Your task to perform on an android device: open app "Mercado Libre" (install if not already installed), go to login, and select forgot password Image 0: 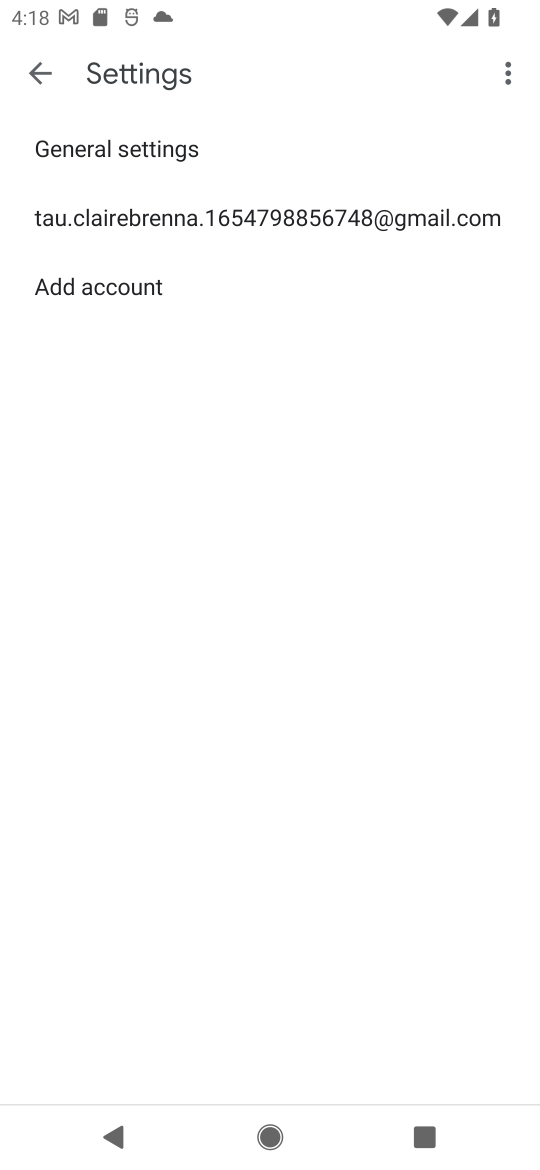
Step 0: press back button
Your task to perform on an android device: open app "Mercado Libre" (install if not already installed), go to login, and select forgot password Image 1: 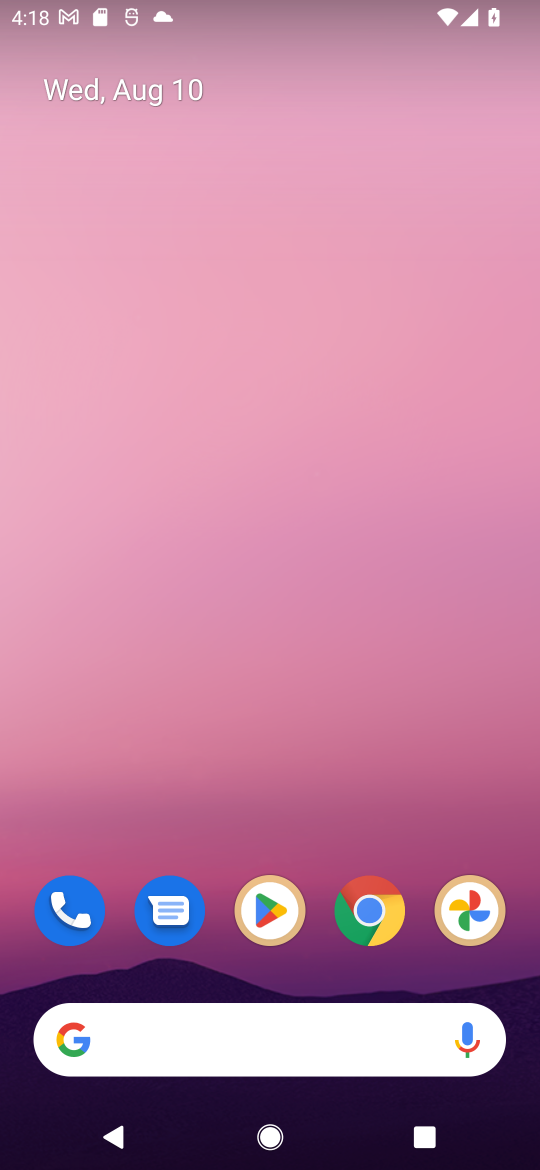
Step 1: click (272, 913)
Your task to perform on an android device: open app "Mercado Libre" (install if not already installed), go to login, and select forgot password Image 2: 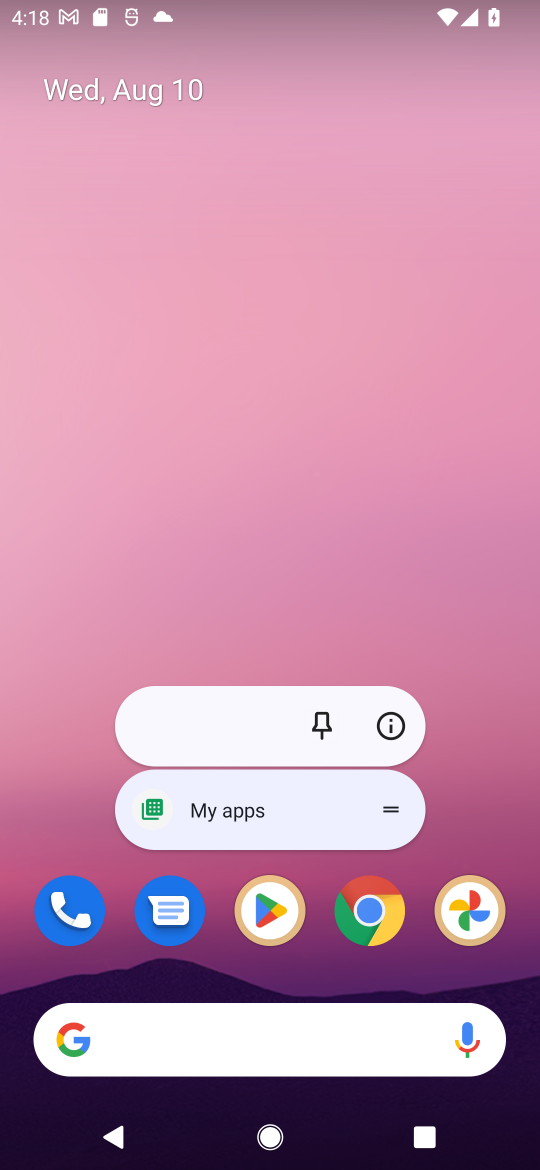
Step 2: click (270, 913)
Your task to perform on an android device: open app "Mercado Libre" (install if not already installed), go to login, and select forgot password Image 3: 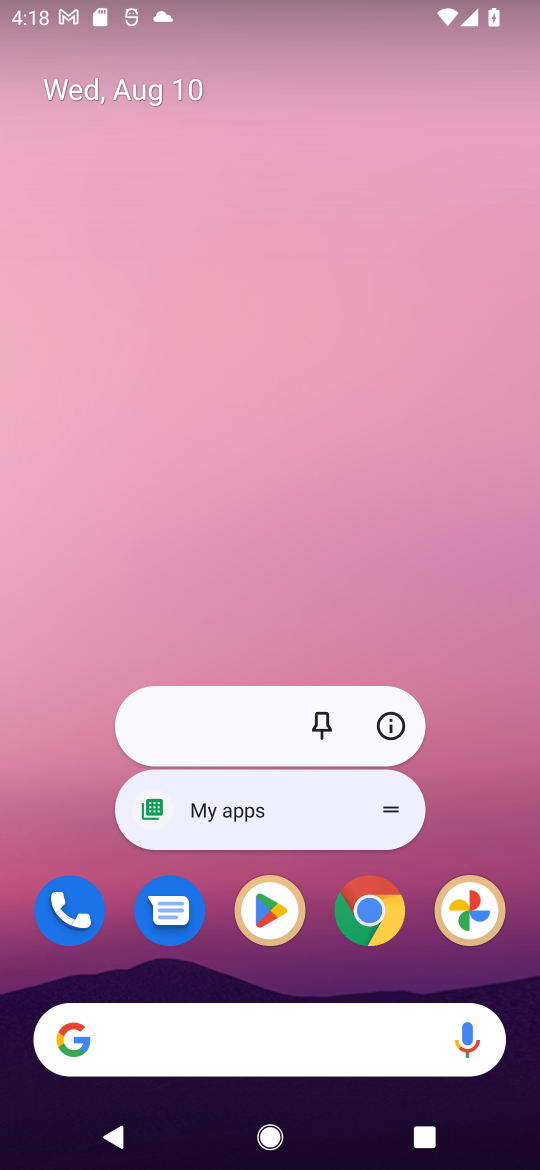
Step 3: click (280, 919)
Your task to perform on an android device: open app "Mercado Libre" (install if not already installed), go to login, and select forgot password Image 4: 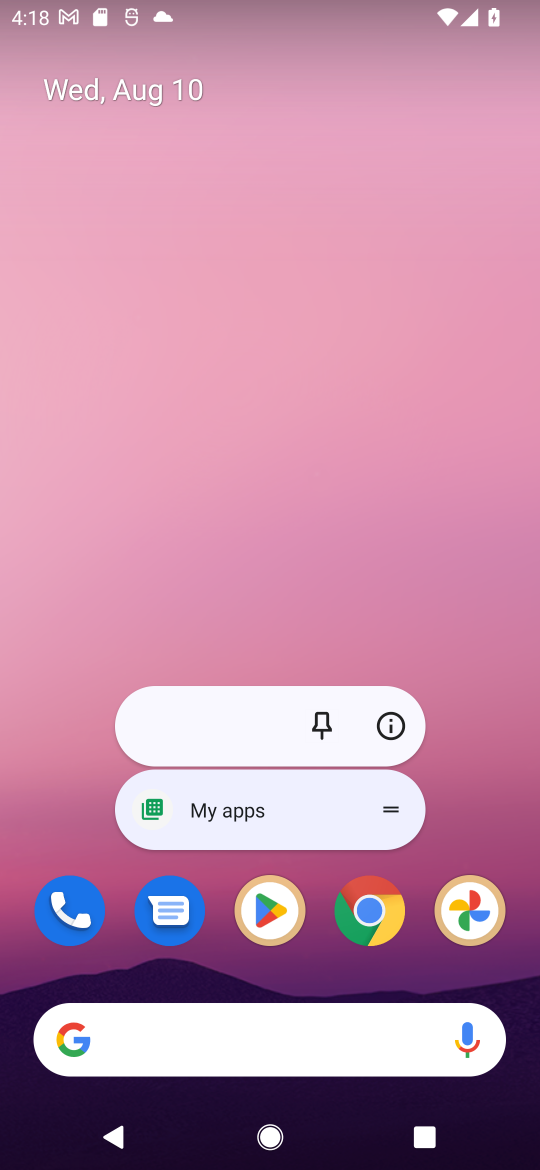
Step 4: click (268, 915)
Your task to perform on an android device: open app "Mercado Libre" (install if not already installed), go to login, and select forgot password Image 5: 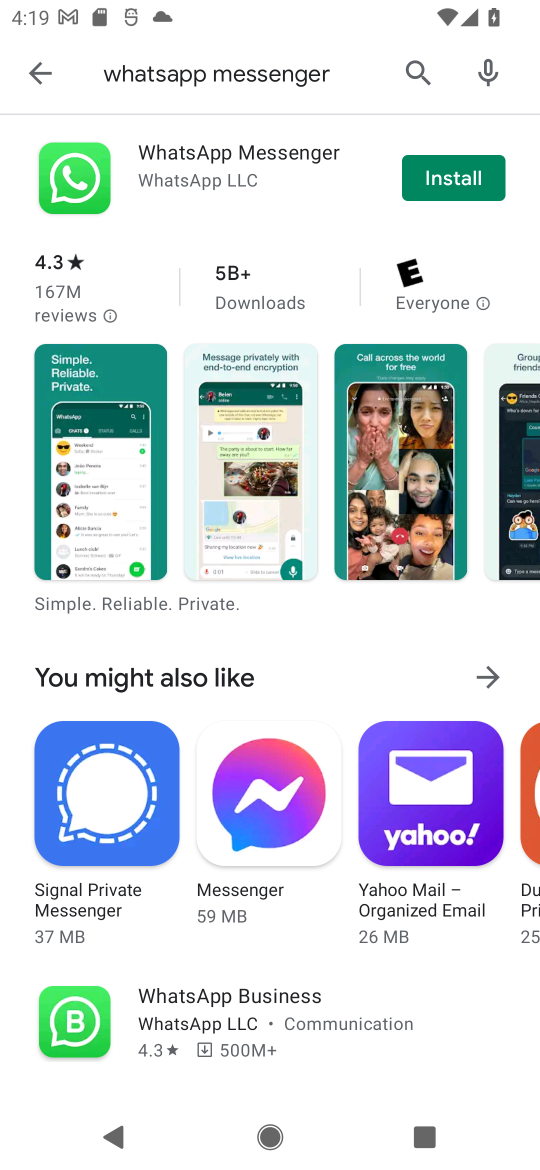
Step 5: click (423, 66)
Your task to perform on an android device: open app "Mercado Libre" (install if not already installed), go to login, and select forgot password Image 6: 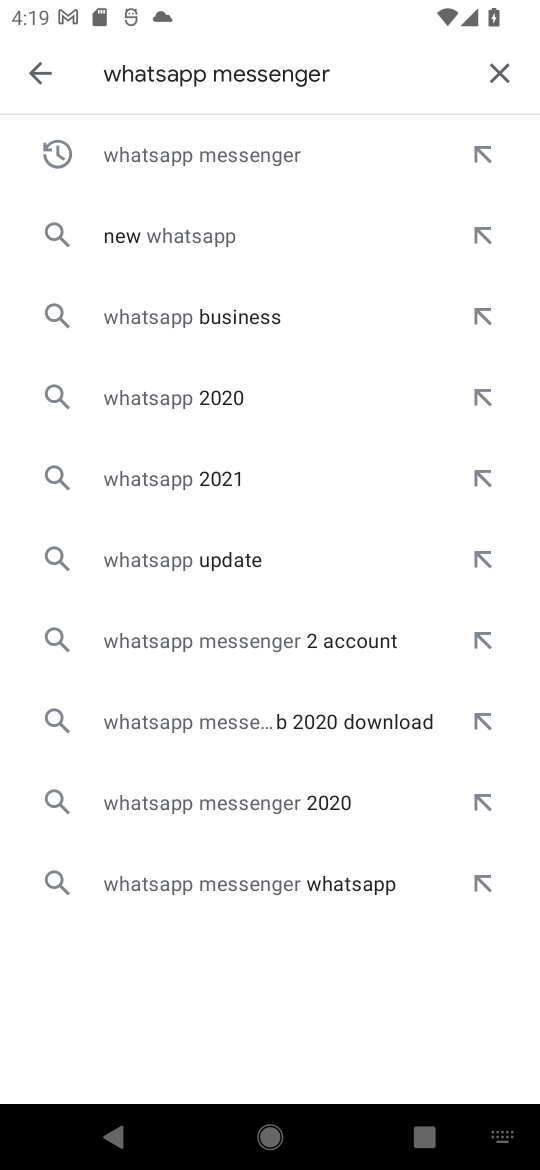
Step 6: click (496, 73)
Your task to perform on an android device: open app "Mercado Libre" (install if not already installed), go to login, and select forgot password Image 7: 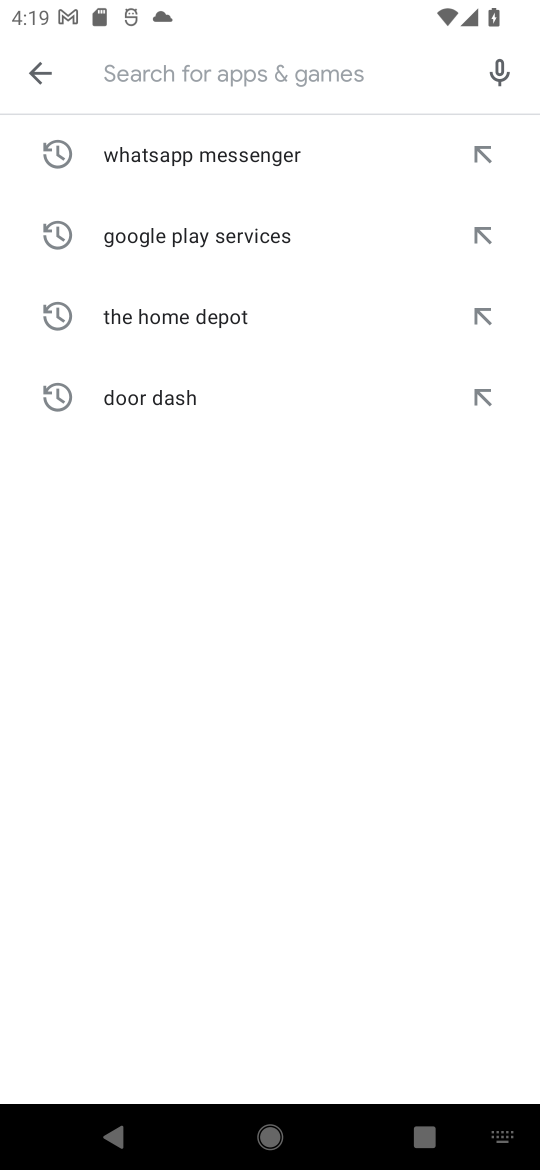
Step 7: click (234, 59)
Your task to perform on an android device: open app "Mercado Libre" (install if not already installed), go to login, and select forgot password Image 8: 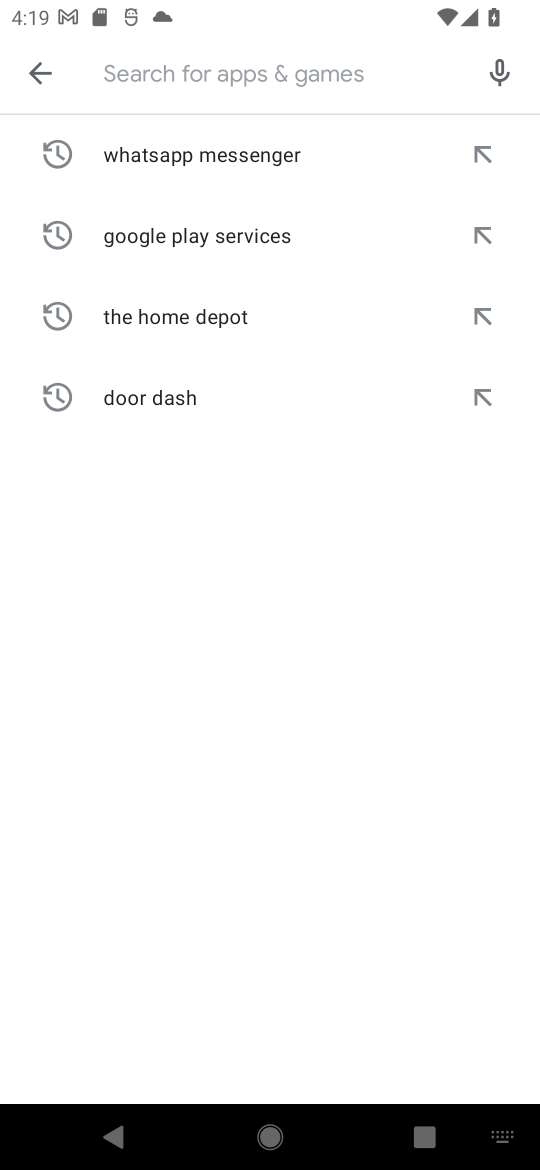
Step 8: type "mercado libre"
Your task to perform on an android device: open app "Mercado Libre" (install if not already installed), go to login, and select forgot password Image 9: 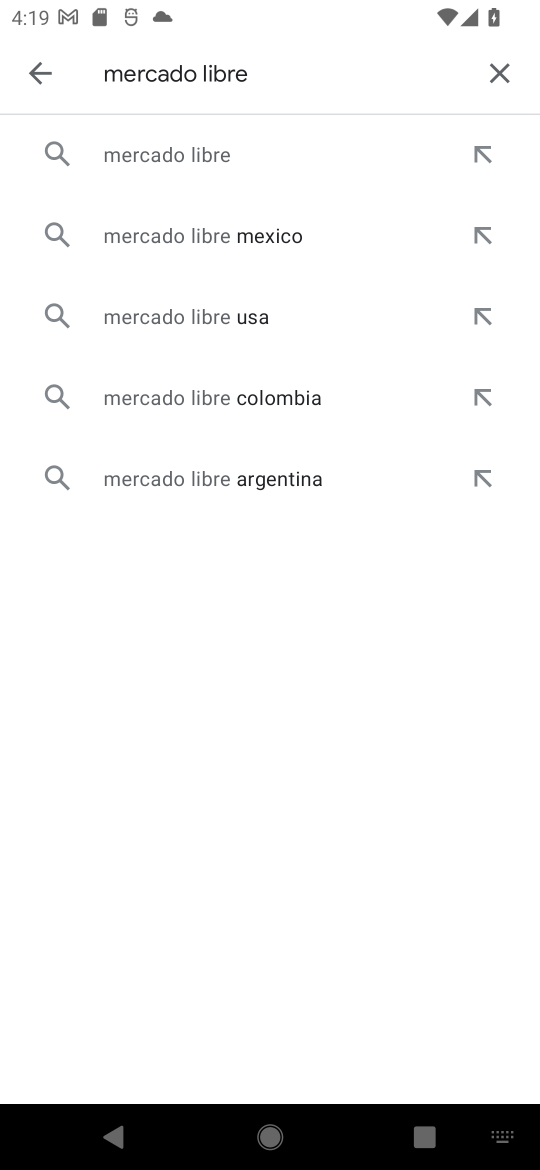
Step 9: click (271, 152)
Your task to perform on an android device: open app "Mercado Libre" (install if not already installed), go to login, and select forgot password Image 10: 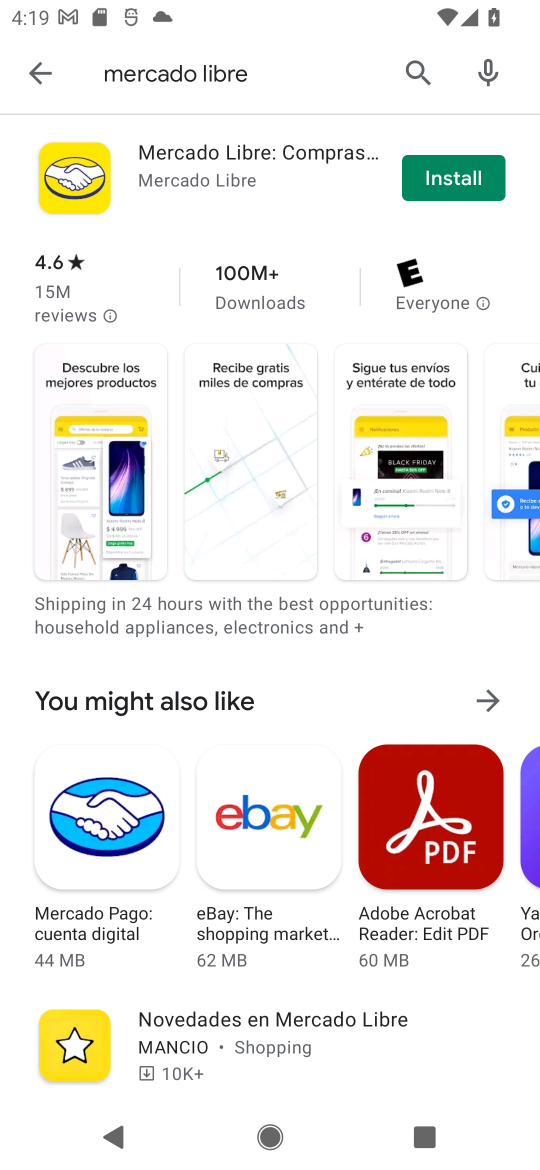
Step 10: click (486, 161)
Your task to perform on an android device: open app "Mercado Libre" (install if not already installed), go to login, and select forgot password Image 11: 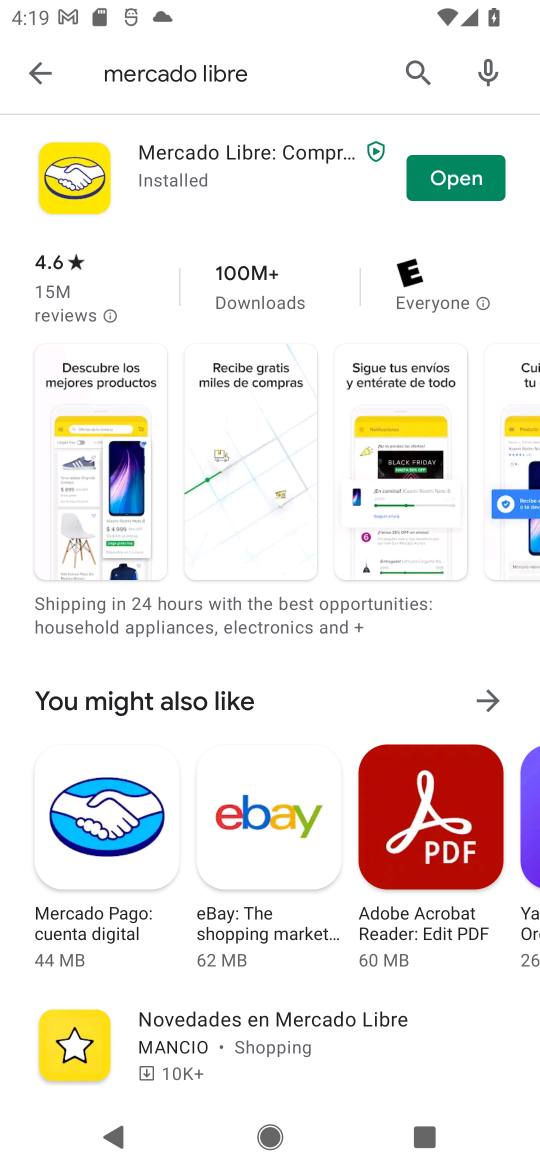
Step 11: click (452, 175)
Your task to perform on an android device: open app "Mercado Libre" (install if not already installed), go to login, and select forgot password Image 12: 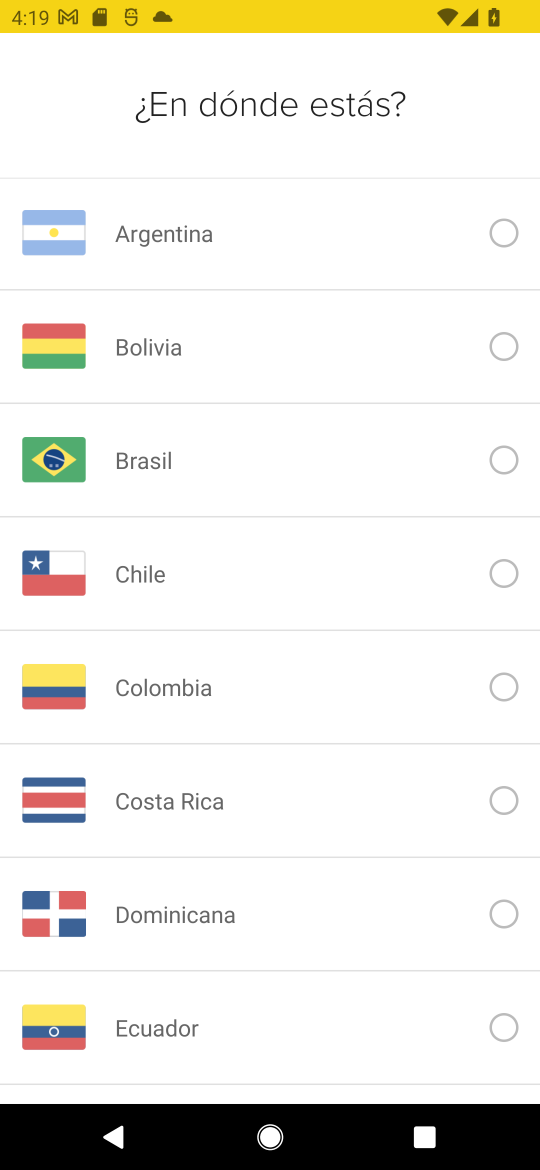
Step 12: drag from (188, 1020) to (374, 157)
Your task to perform on an android device: open app "Mercado Libre" (install if not already installed), go to login, and select forgot password Image 13: 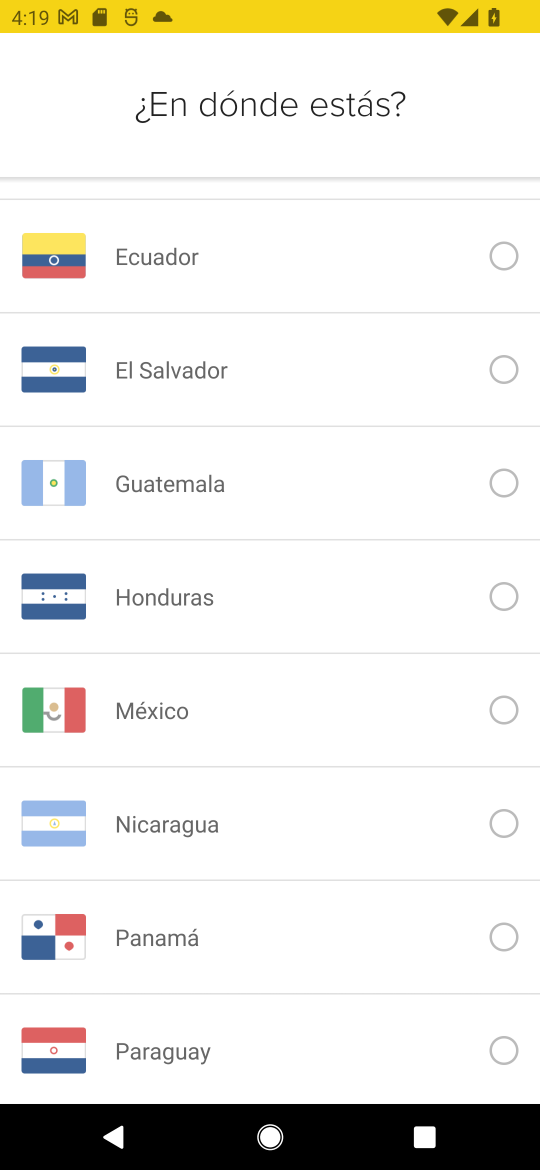
Step 13: drag from (248, 1020) to (385, 127)
Your task to perform on an android device: open app "Mercado Libre" (install if not already installed), go to login, and select forgot password Image 14: 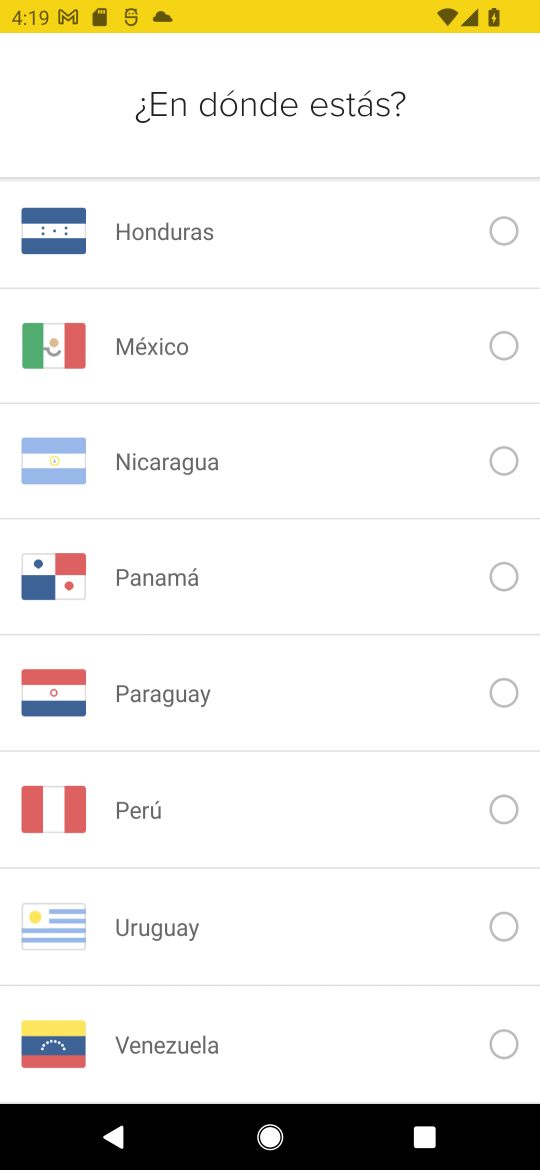
Step 14: drag from (204, 942) to (496, 7)
Your task to perform on an android device: open app "Mercado Libre" (install if not already installed), go to login, and select forgot password Image 15: 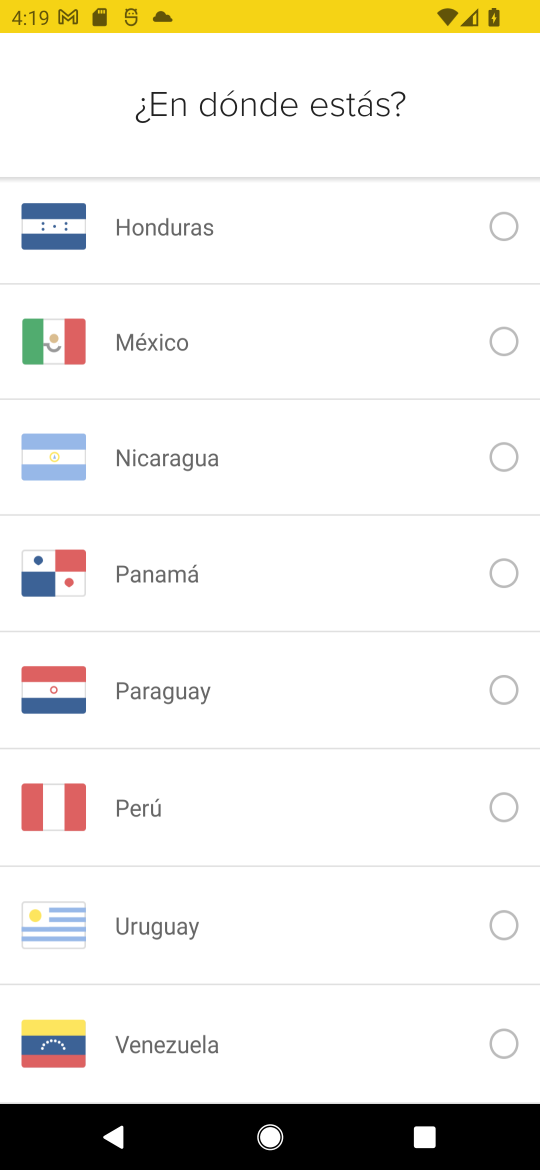
Step 15: drag from (362, 681) to (215, 1145)
Your task to perform on an android device: open app "Mercado Libre" (install if not already installed), go to login, and select forgot password Image 16: 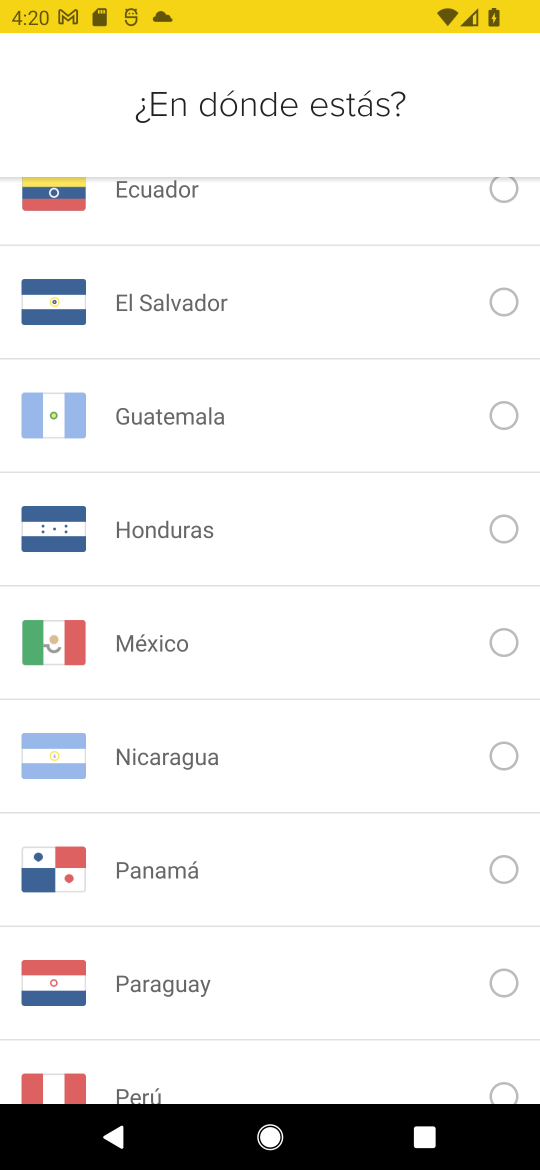
Step 16: drag from (309, 419) to (181, 1120)
Your task to perform on an android device: open app "Mercado Libre" (install if not already installed), go to login, and select forgot password Image 17: 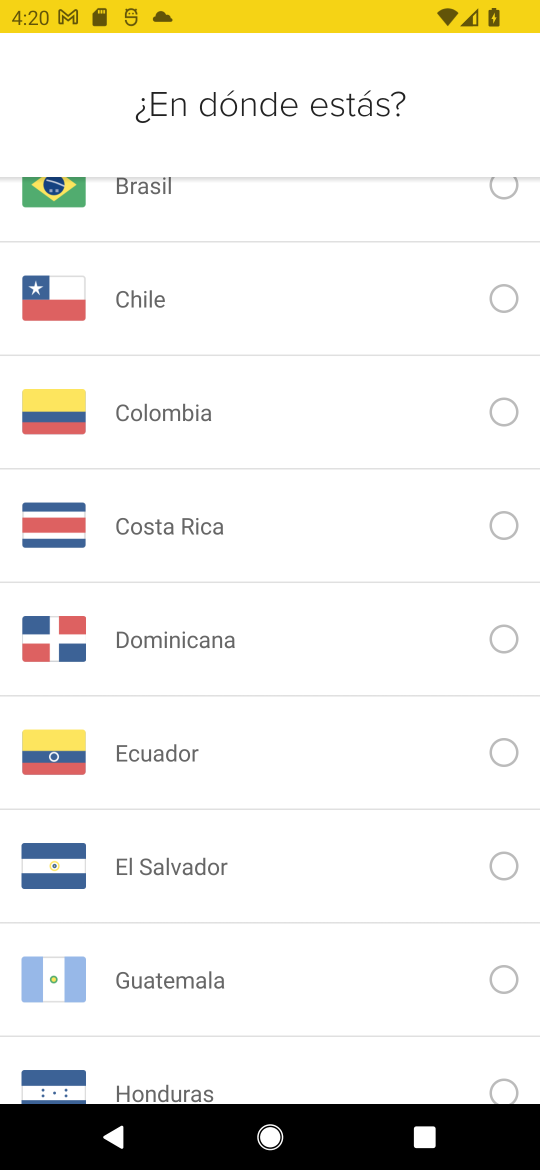
Step 17: click (502, 202)
Your task to perform on an android device: open app "Mercado Libre" (install if not already installed), go to login, and select forgot password Image 18: 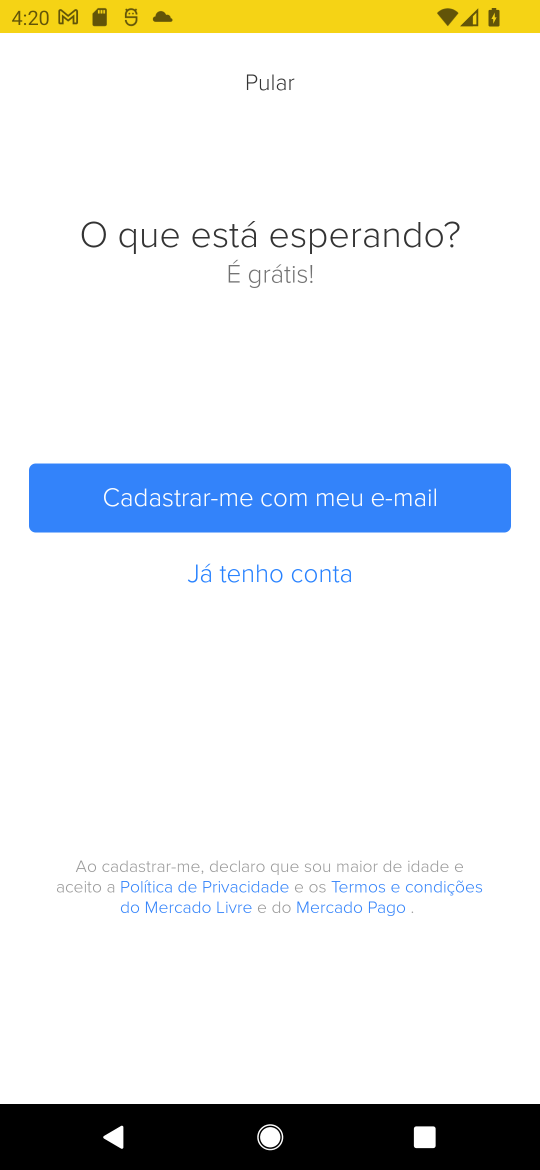
Step 18: click (309, 500)
Your task to perform on an android device: open app "Mercado Libre" (install if not already installed), go to login, and select forgot password Image 19: 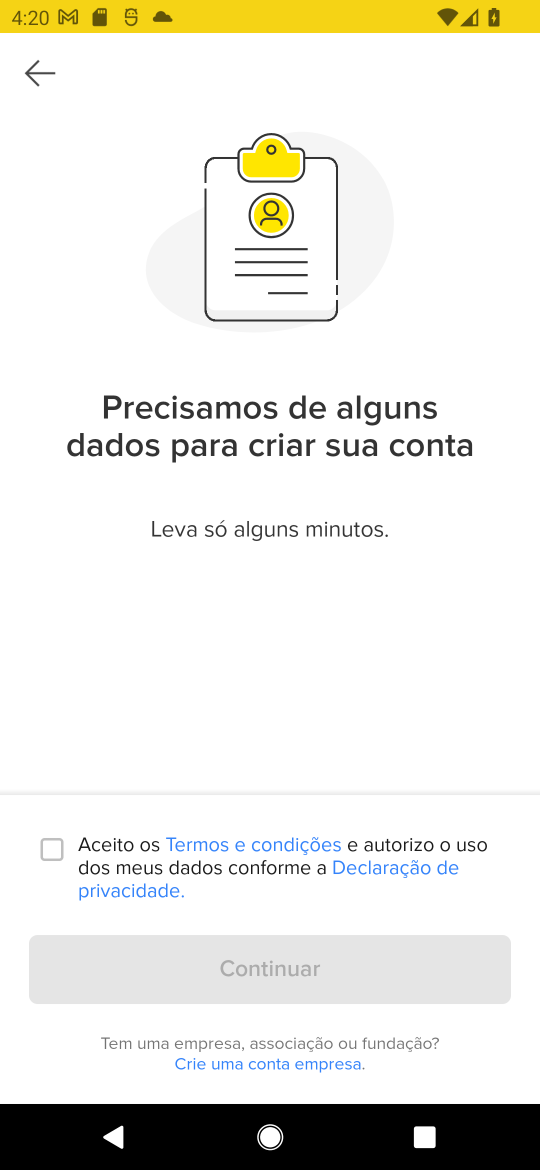
Step 19: click (240, 527)
Your task to perform on an android device: open app "Mercado Libre" (install if not already installed), go to login, and select forgot password Image 20: 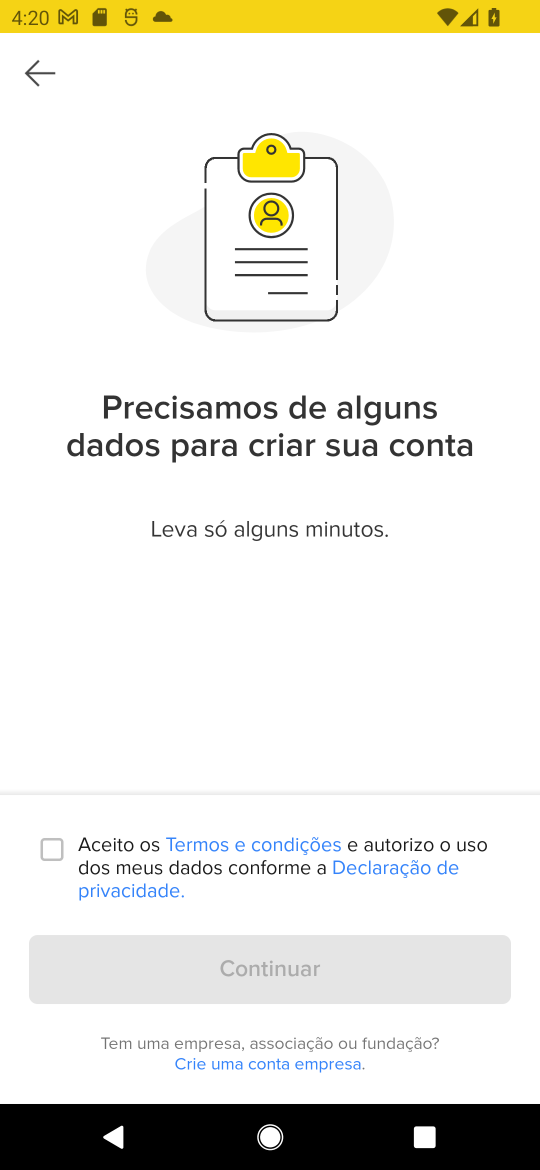
Step 20: click (41, 847)
Your task to perform on an android device: open app "Mercado Libre" (install if not already installed), go to login, and select forgot password Image 21: 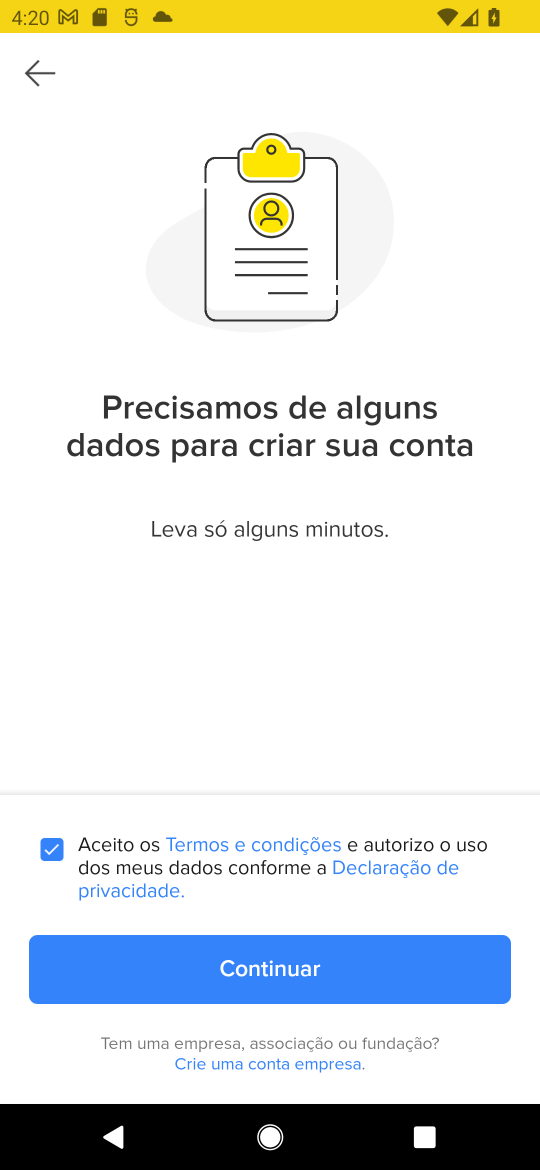
Step 21: click (254, 969)
Your task to perform on an android device: open app "Mercado Libre" (install if not already installed), go to login, and select forgot password Image 22: 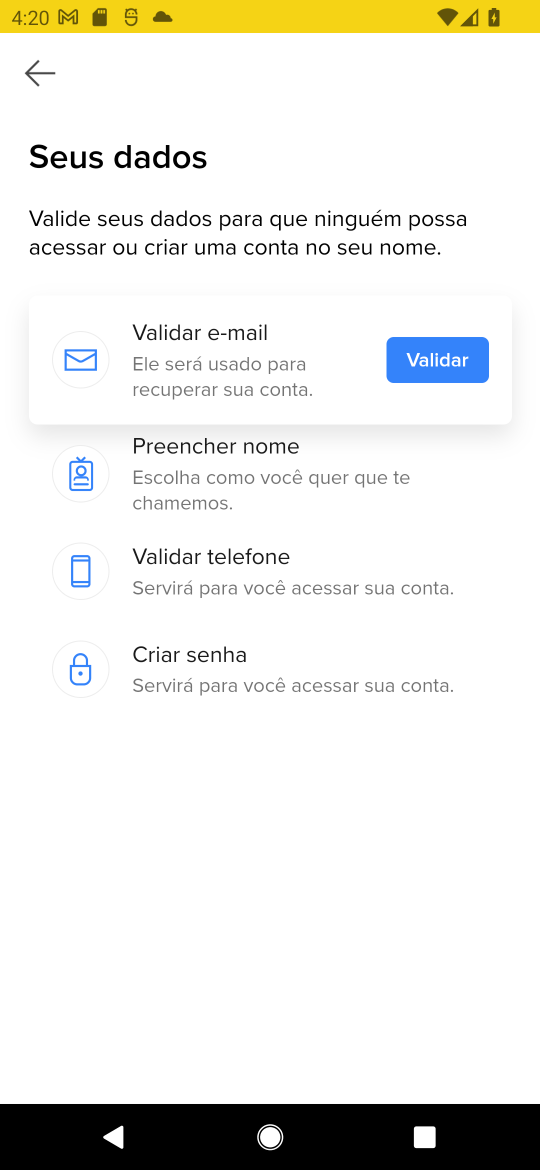
Step 22: task complete